Your task to perform on an android device: toggle improve location accuracy Image 0: 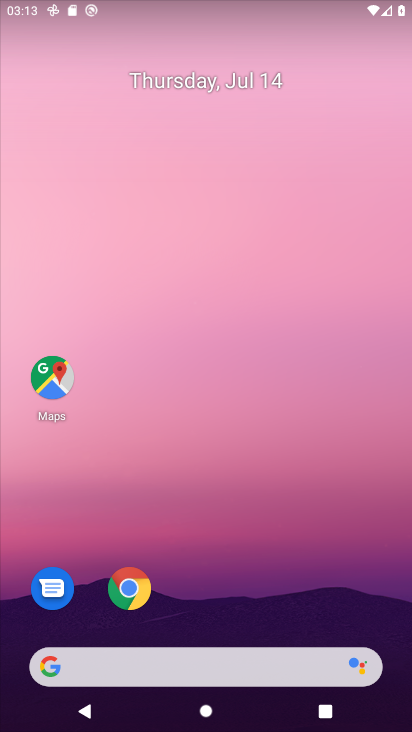
Step 0: drag from (228, 615) to (214, 111)
Your task to perform on an android device: toggle improve location accuracy Image 1: 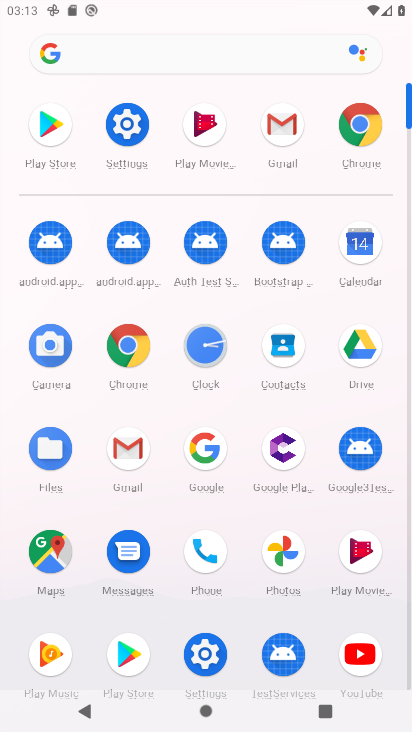
Step 1: click (125, 123)
Your task to perform on an android device: toggle improve location accuracy Image 2: 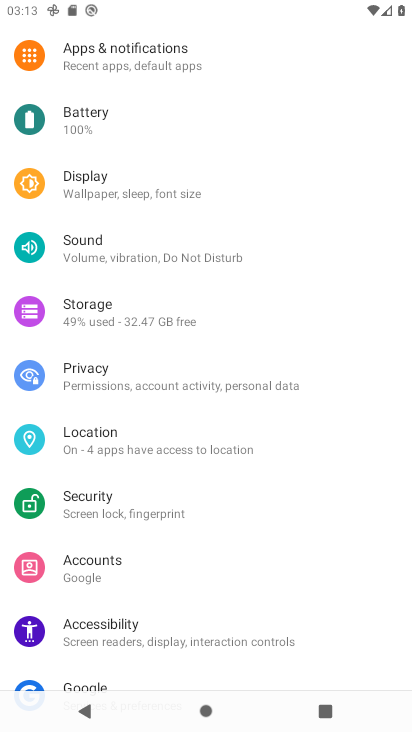
Step 2: click (182, 446)
Your task to perform on an android device: toggle improve location accuracy Image 3: 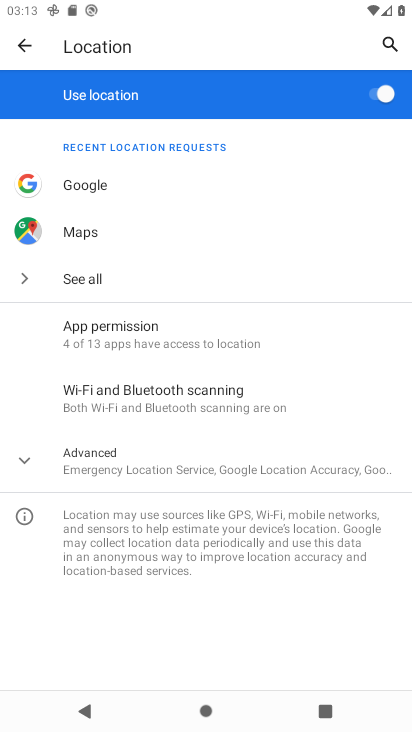
Step 3: click (169, 462)
Your task to perform on an android device: toggle improve location accuracy Image 4: 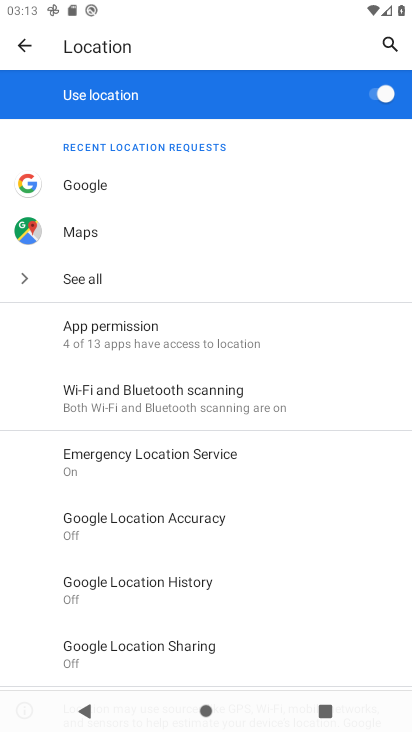
Step 4: click (180, 516)
Your task to perform on an android device: toggle improve location accuracy Image 5: 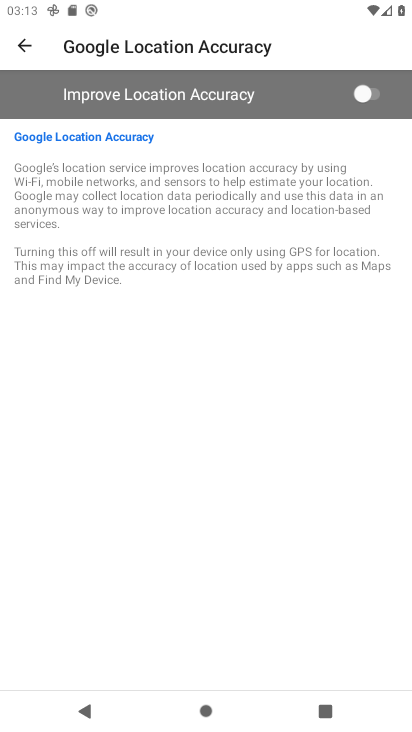
Step 5: click (366, 86)
Your task to perform on an android device: toggle improve location accuracy Image 6: 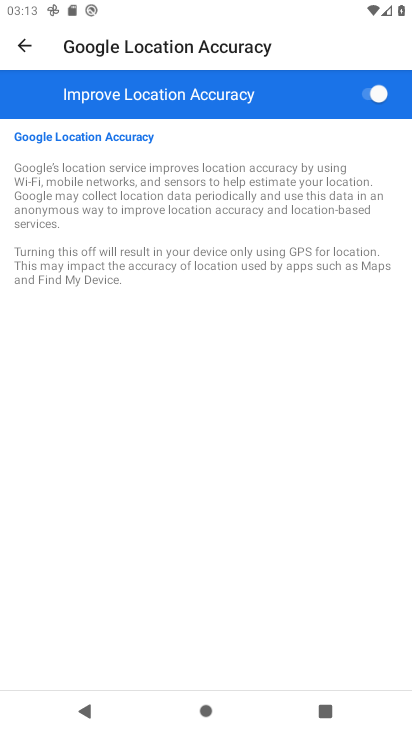
Step 6: task complete